Your task to perform on an android device: see sites visited before in the chrome app Image 0: 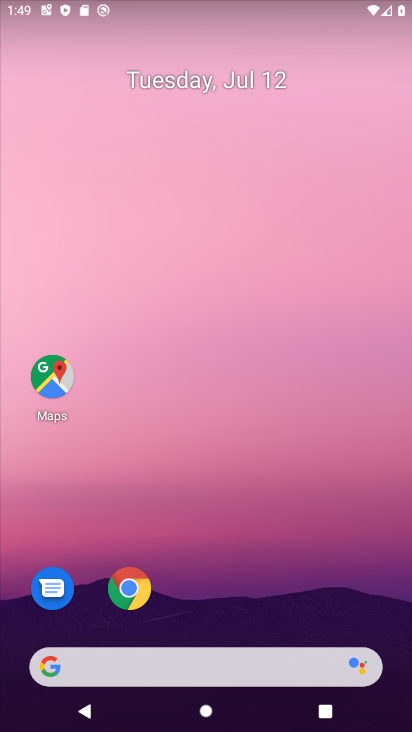
Step 0: click (125, 594)
Your task to perform on an android device: see sites visited before in the chrome app Image 1: 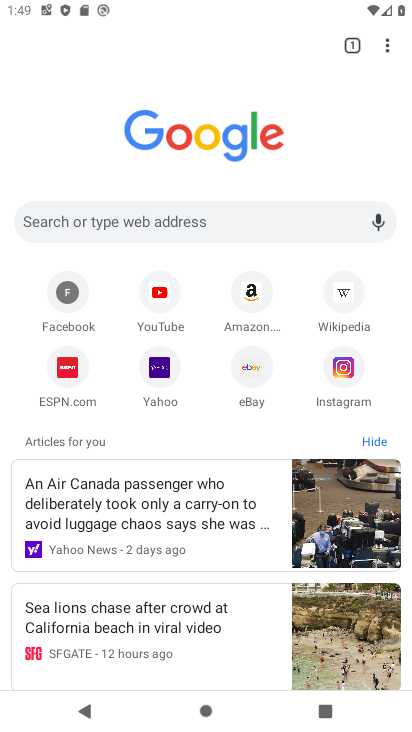
Step 1: task complete